Your task to perform on an android device: turn vacation reply on in the gmail app Image 0: 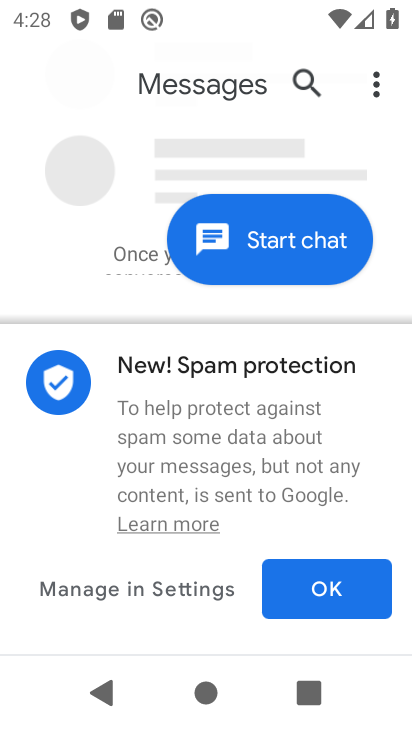
Step 0: press home button
Your task to perform on an android device: turn vacation reply on in the gmail app Image 1: 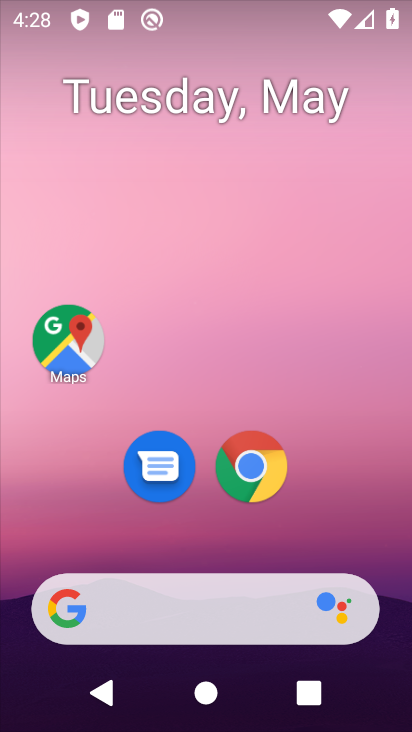
Step 1: drag from (393, 564) to (353, 97)
Your task to perform on an android device: turn vacation reply on in the gmail app Image 2: 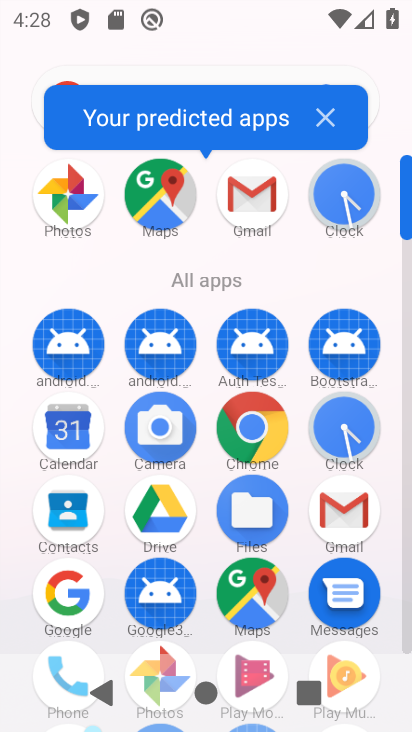
Step 2: click (264, 203)
Your task to perform on an android device: turn vacation reply on in the gmail app Image 3: 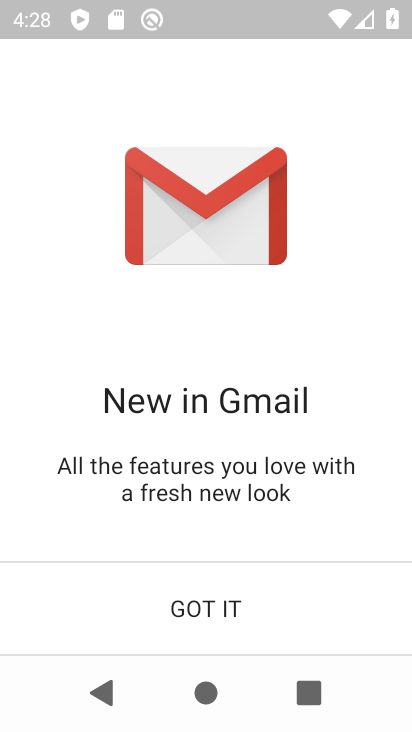
Step 3: click (230, 610)
Your task to perform on an android device: turn vacation reply on in the gmail app Image 4: 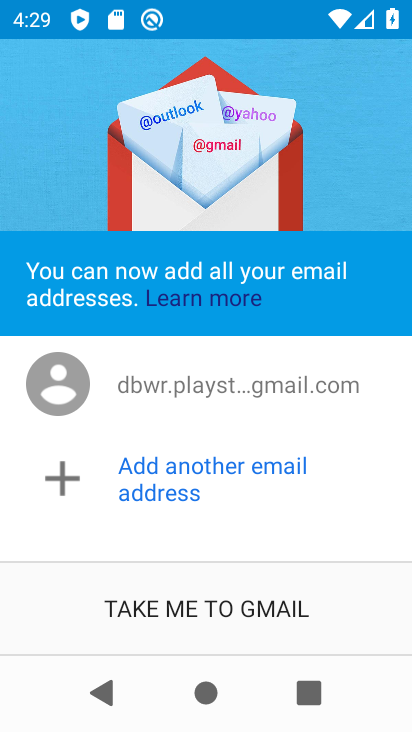
Step 4: click (230, 610)
Your task to perform on an android device: turn vacation reply on in the gmail app Image 5: 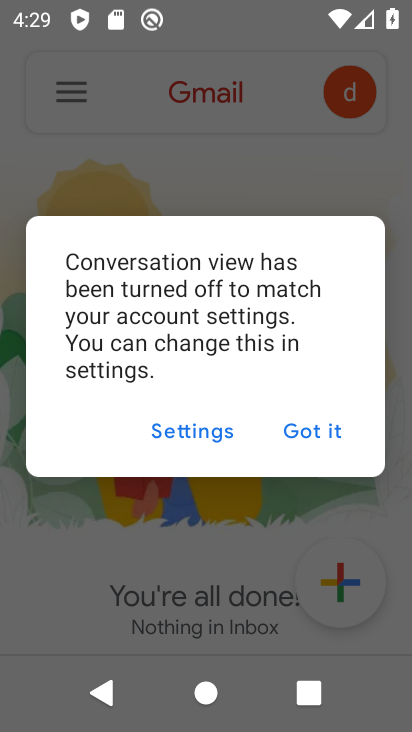
Step 5: click (294, 443)
Your task to perform on an android device: turn vacation reply on in the gmail app Image 6: 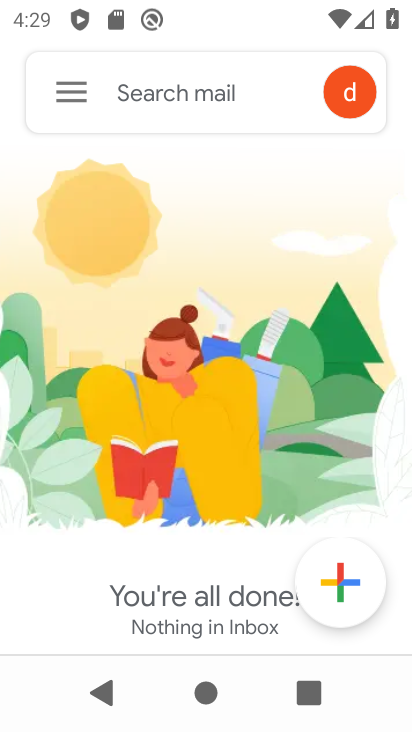
Step 6: click (83, 119)
Your task to perform on an android device: turn vacation reply on in the gmail app Image 7: 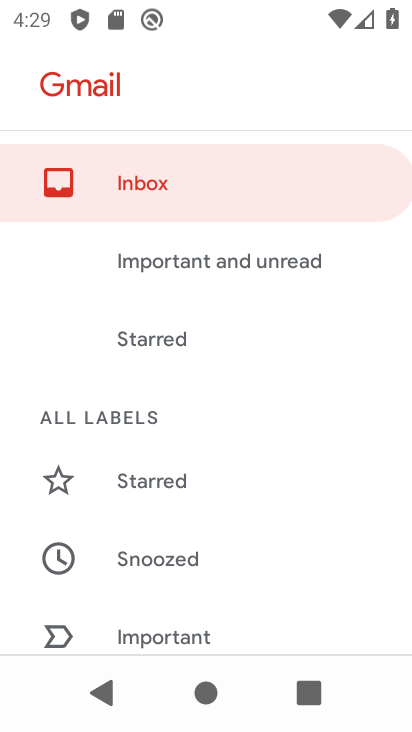
Step 7: drag from (178, 640) to (163, 128)
Your task to perform on an android device: turn vacation reply on in the gmail app Image 8: 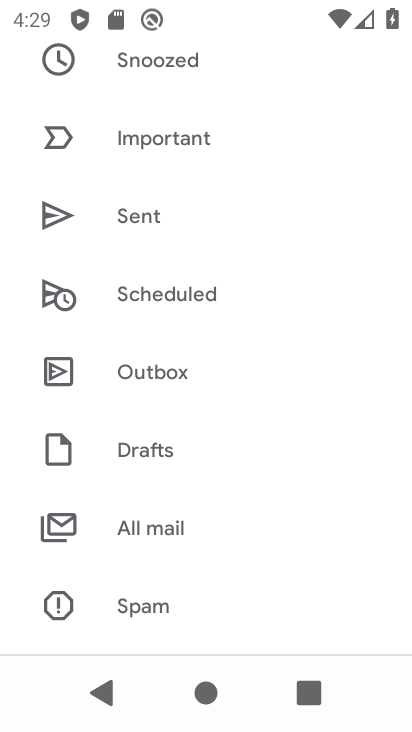
Step 8: drag from (191, 618) to (181, 48)
Your task to perform on an android device: turn vacation reply on in the gmail app Image 9: 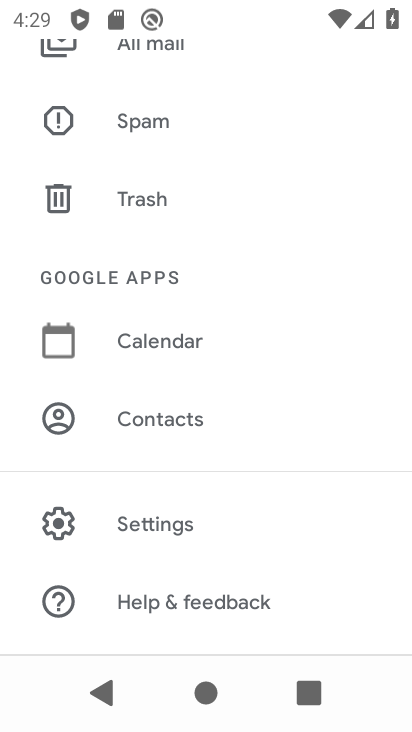
Step 9: click (194, 524)
Your task to perform on an android device: turn vacation reply on in the gmail app Image 10: 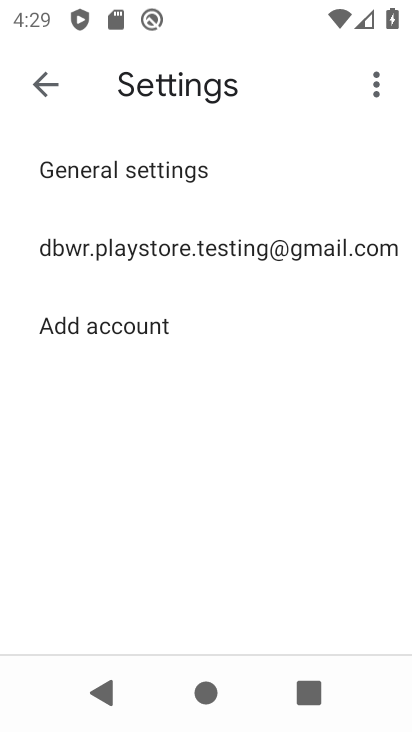
Step 10: click (254, 273)
Your task to perform on an android device: turn vacation reply on in the gmail app Image 11: 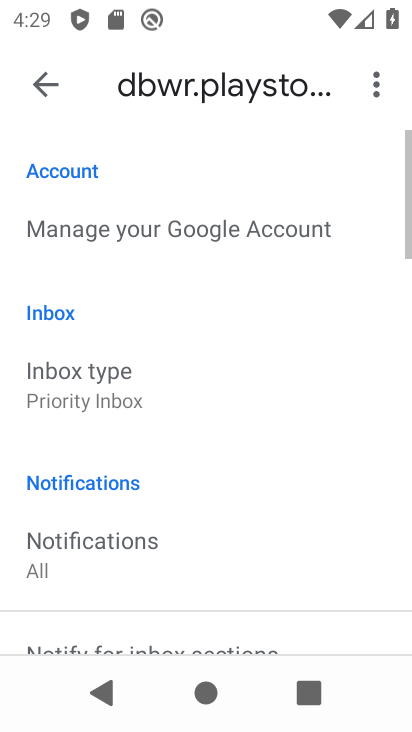
Step 11: drag from (210, 617) to (192, 118)
Your task to perform on an android device: turn vacation reply on in the gmail app Image 12: 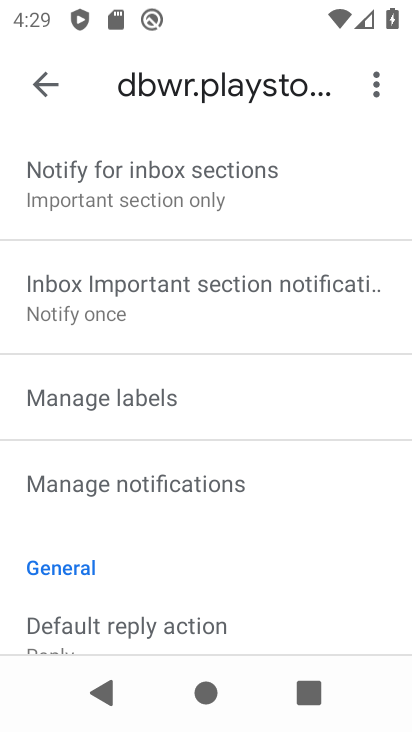
Step 12: drag from (195, 561) to (183, 118)
Your task to perform on an android device: turn vacation reply on in the gmail app Image 13: 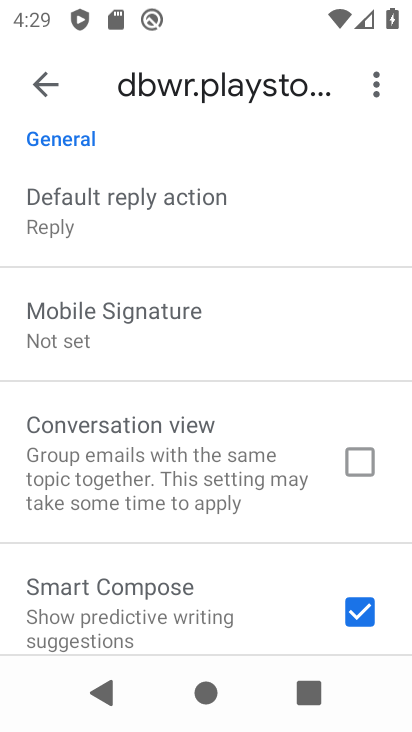
Step 13: drag from (219, 562) to (213, 241)
Your task to perform on an android device: turn vacation reply on in the gmail app Image 14: 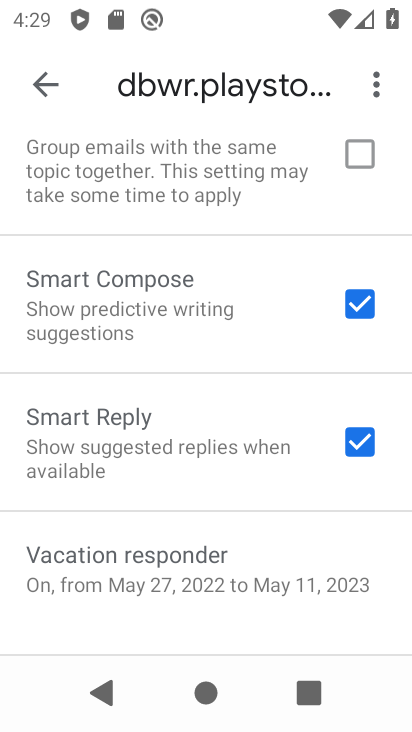
Step 14: drag from (229, 564) to (207, 352)
Your task to perform on an android device: turn vacation reply on in the gmail app Image 15: 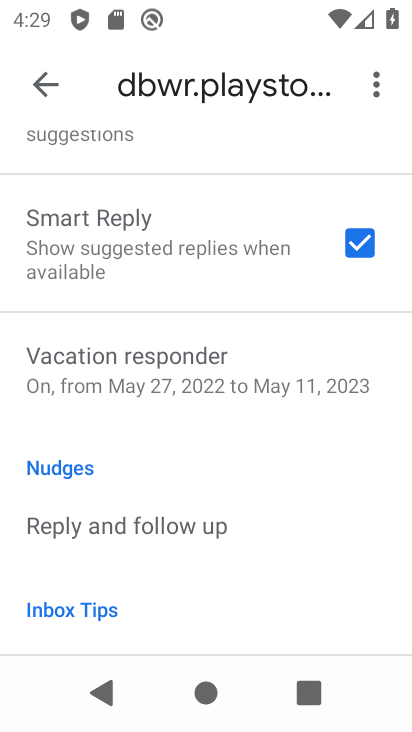
Step 15: click (207, 352)
Your task to perform on an android device: turn vacation reply on in the gmail app Image 16: 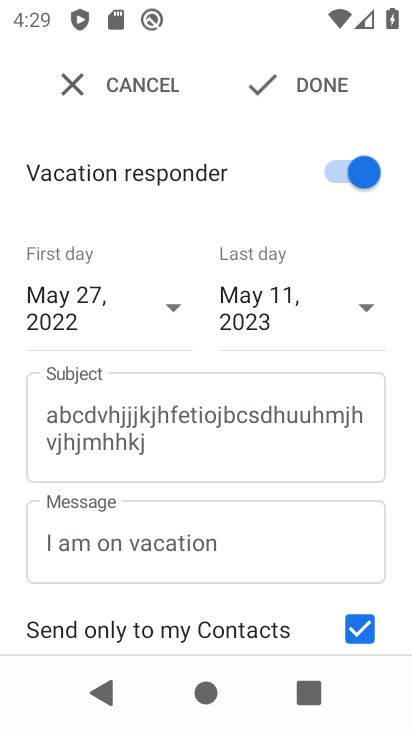
Step 16: click (220, 454)
Your task to perform on an android device: turn vacation reply on in the gmail app Image 17: 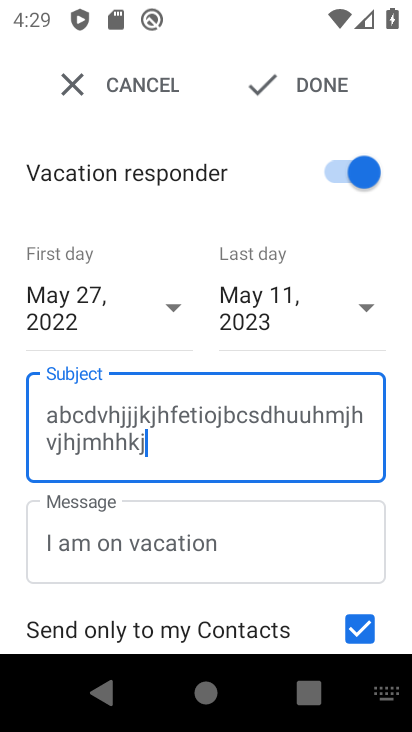
Step 17: type "bkhbk"
Your task to perform on an android device: turn vacation reply on in the gmail app Image 18: 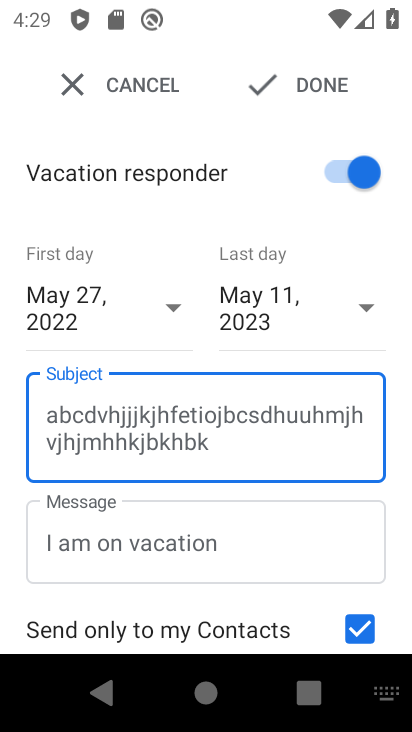
Step 18: click (346, 84)
Your task to perform on an android device: turn vacation reply on in the gmail app Image 19: 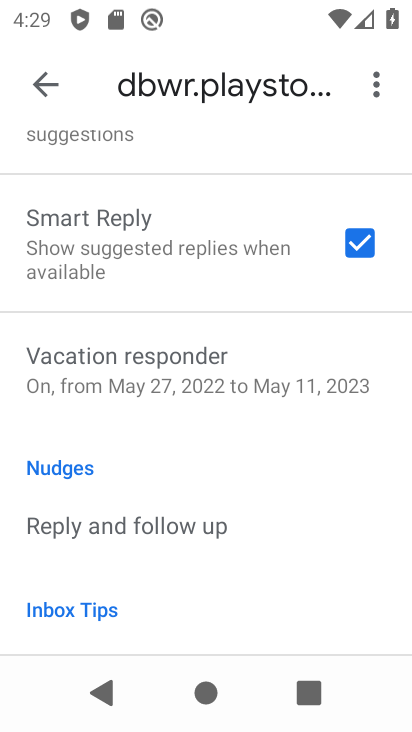
Step 19: task complete